Your task to perform on an android device: check android version Image 0: 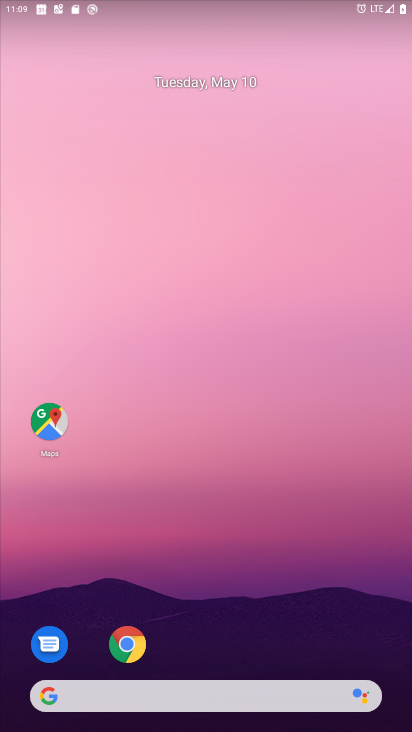
Step 0: drag from (253, 652) to (310, 258)
Your task to perform on an android device: check android version Image 1: 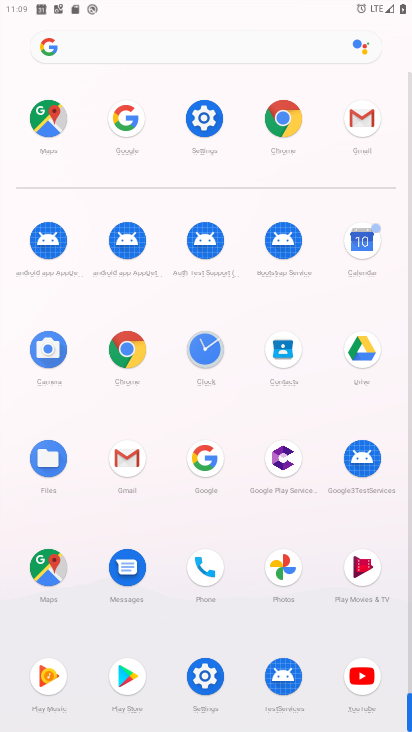
Step 1: click (193, 133)
Your task to perform on an android device: check android version Image 2: 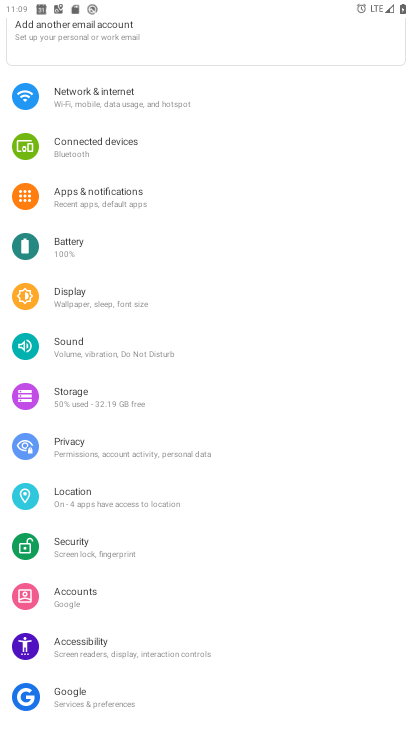
Step 2: drag from (206, 591) to (219, 377)
Your task to perform on an android device: check android version Image 3: 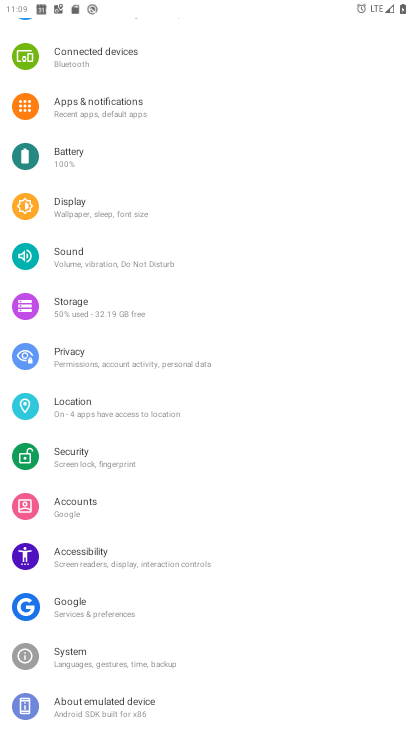
Step 3: click (151, 709)
Your task to perform on an android device: check android version Image 4: 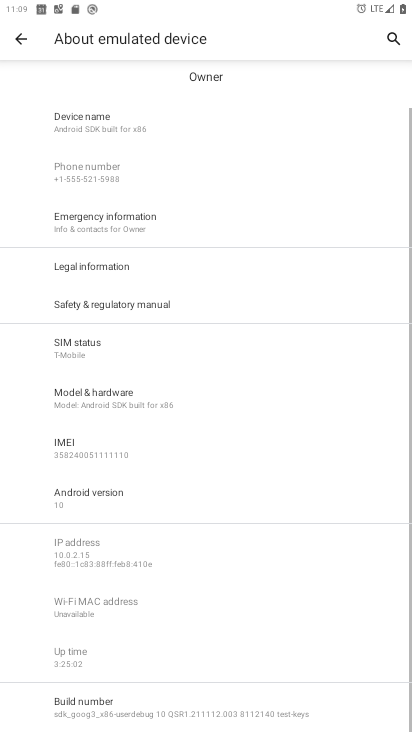
Step 4: click (187, 491)
Your task to perform on an android device: check android version Image 5: 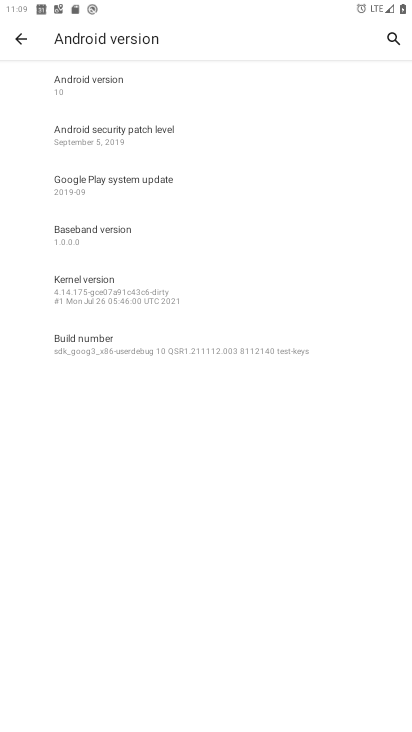
Step 5: click (246, 88)
Your task to perform on an android device: check android version Image 6: 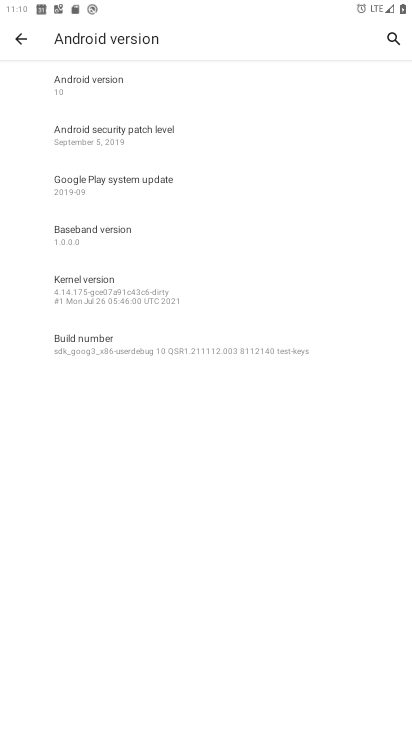
Step 6: task complete